Your task to perform on an android device: Open Amazon Image 0: 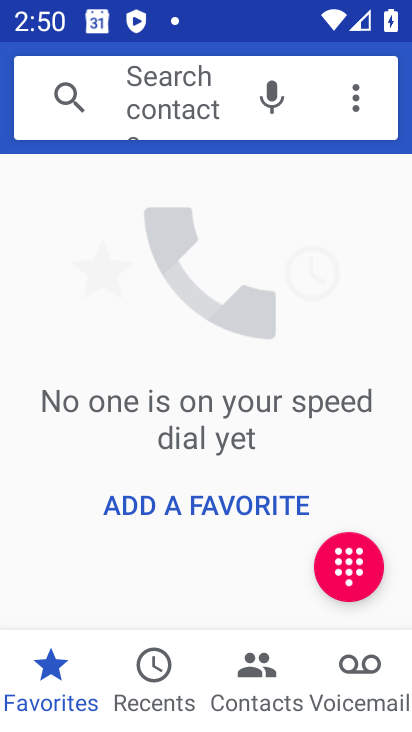
Step 0: press home button
Your task to perform on an android device: Open Amazon Image 1: 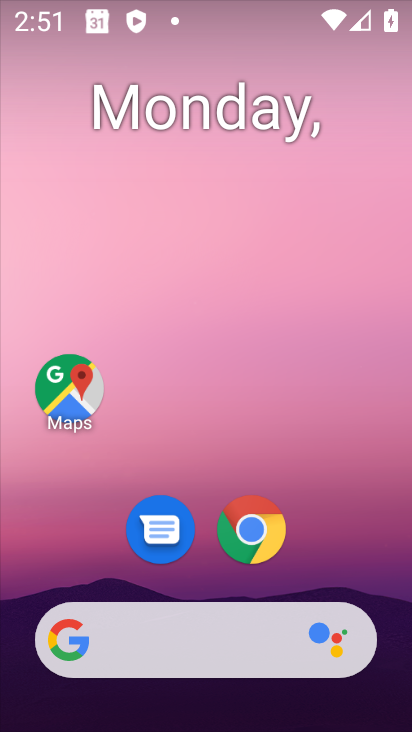
Step 1: click (265, 519)
Your task to perform on an android device: Open Amazon Image 2: 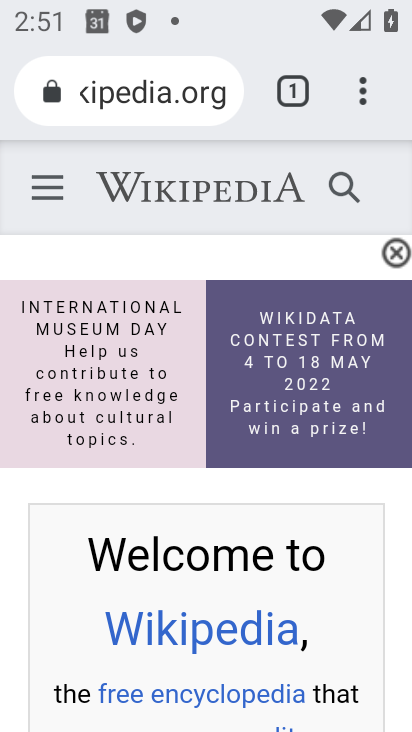
Step 2: click (290, 114)
Your task to perform on an android device: Open Amazon Image 3: 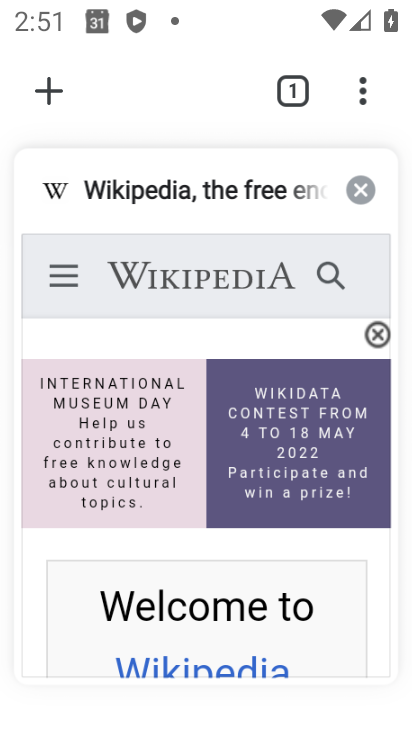
Step 3: click (60, 98)
Your task to perform on an android device: Open Amazon Image 4: 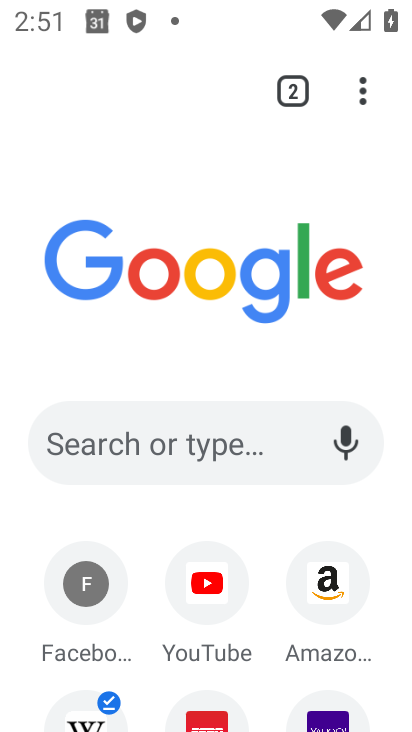
Step 4: click (322, 572)
Your task to perform on an android device: Open Amazon Image 5: 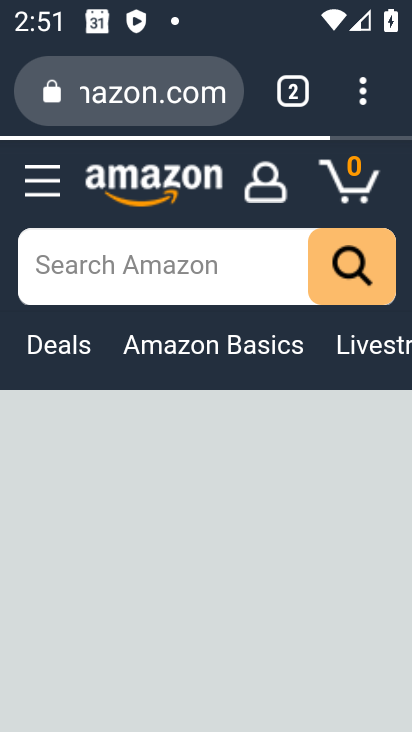
Step 5: task complete